Your task to perform on an android device: open app "eBay: The shopping marketplace" Image 0: 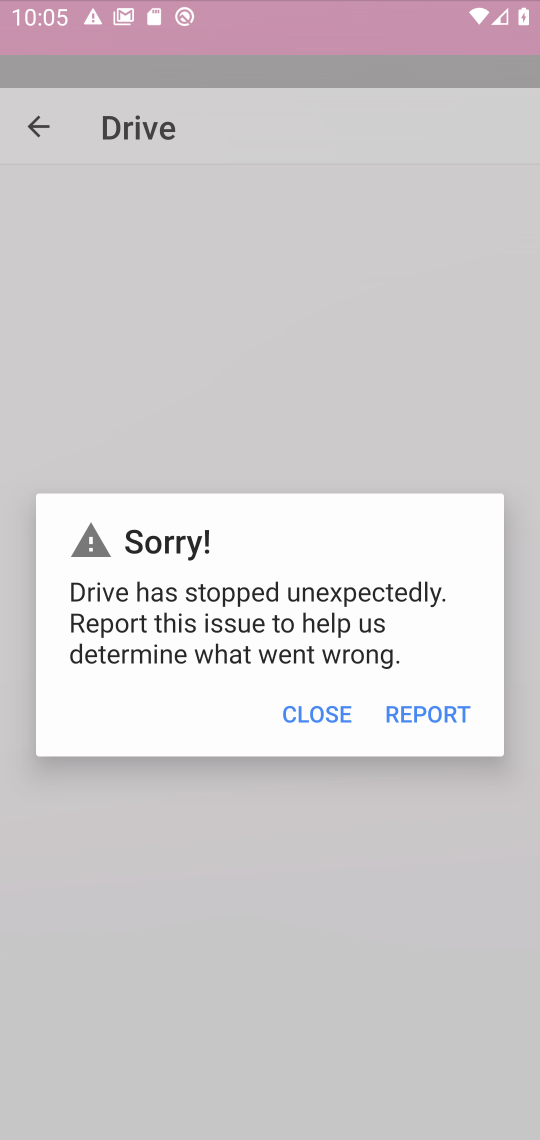
Step 0: click (204, 74)
Your task to perform on an android device: open app "eBay: The shopping marketplace" Image 1: 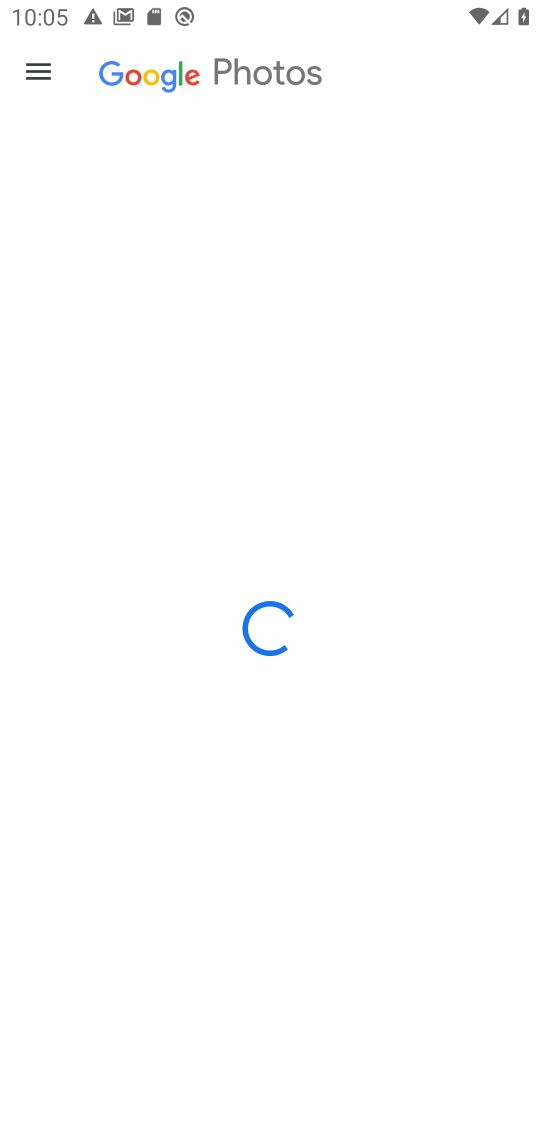
Step 1: press home button
Your task to perform on an android device: open app "eBay: The shopping marketplace" Image 2: 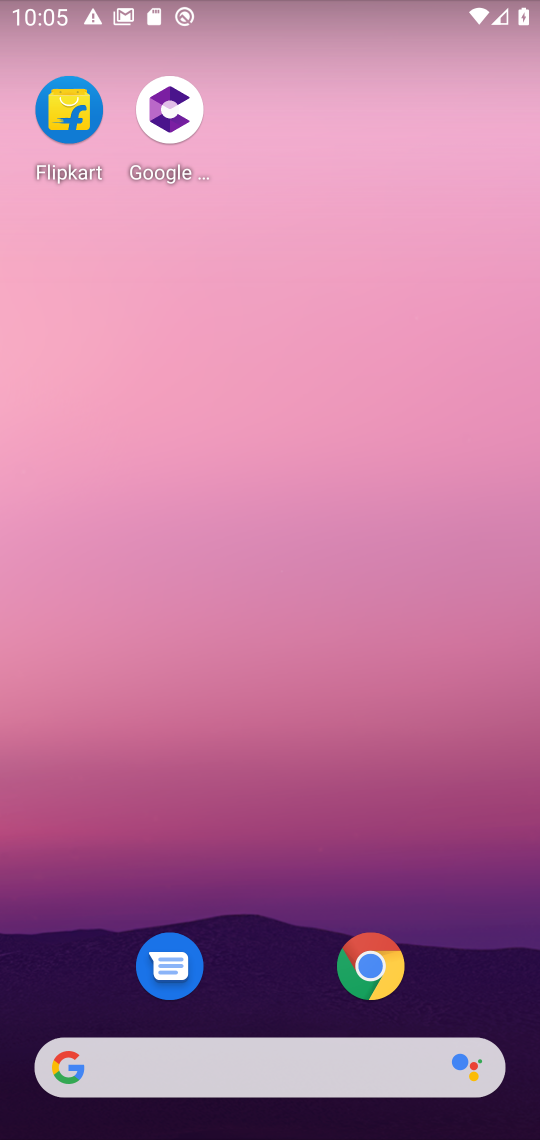
Step 2: drag from (274, 788) to (230, 8)
Your task to perform on an android device: open app "eBay: The shopping marketplace" Image 3: 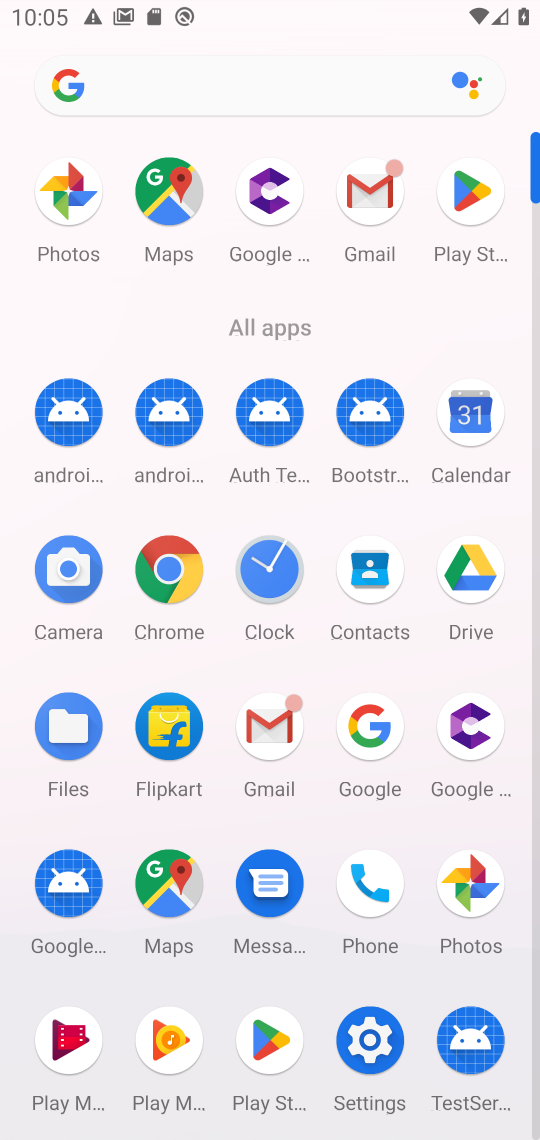
Step 3: click (456, 197)
Your task to perform on an android device: open app "eBay: The shopping marketplace" Image 4: 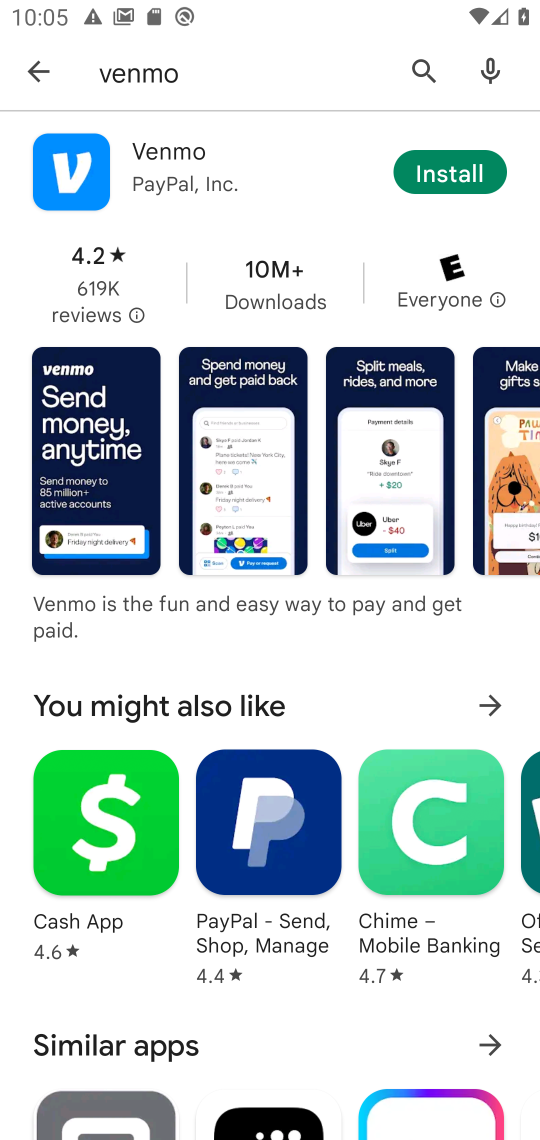
Step 4: click (160, 74)
Your task to perform on an android device: open app "eBay: The shopping marketplace" Image 5: 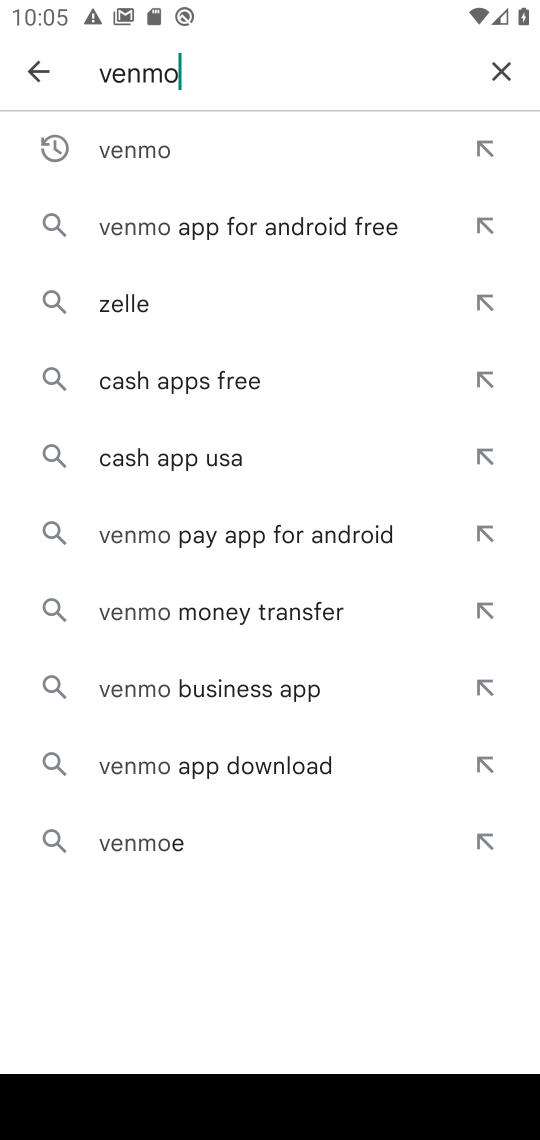
Step 5: click (503, 62)
Your task to perform on an android device: open app "eBay: The shopping marketplace" Image 6: 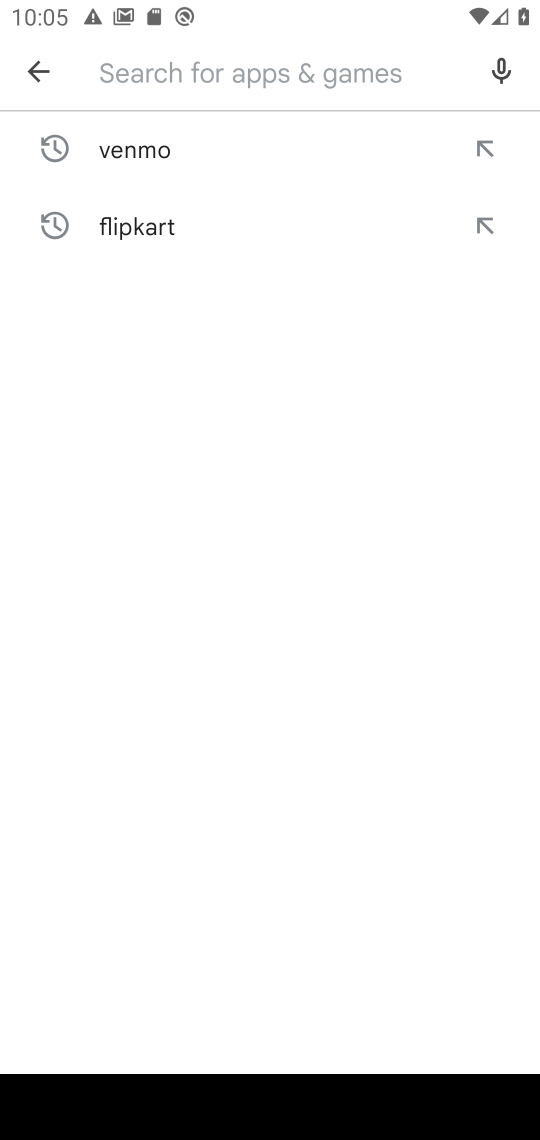
Step 6: type "eBay"
Your task to perform on an android device: open app "eBay: The shopping marketplace" Image 7: 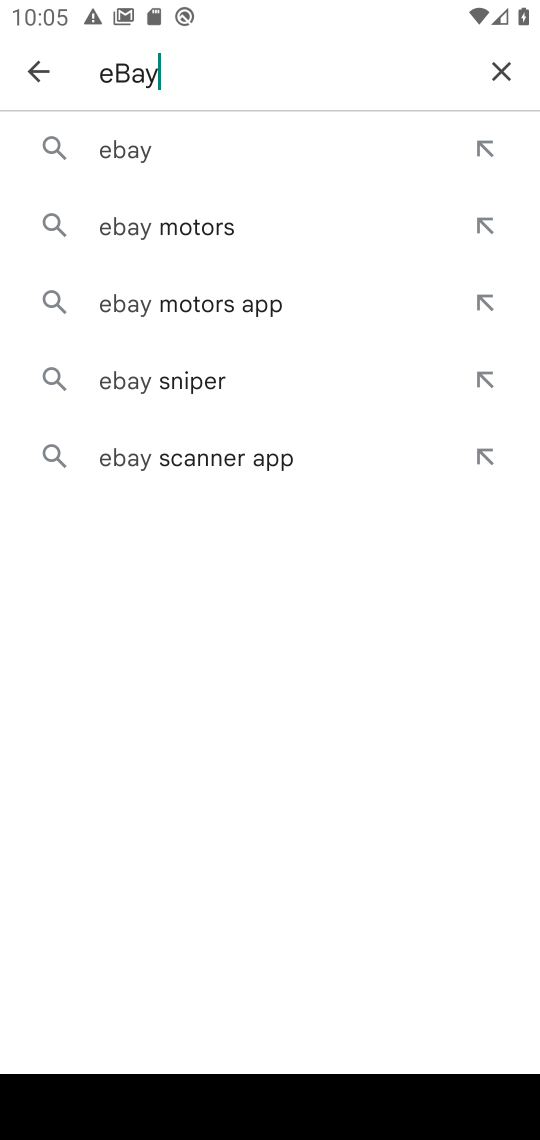
Step 7: click (138, 152)
Your task to perform on an android device: open app "eBay: The shopping marketplace" Image 8: 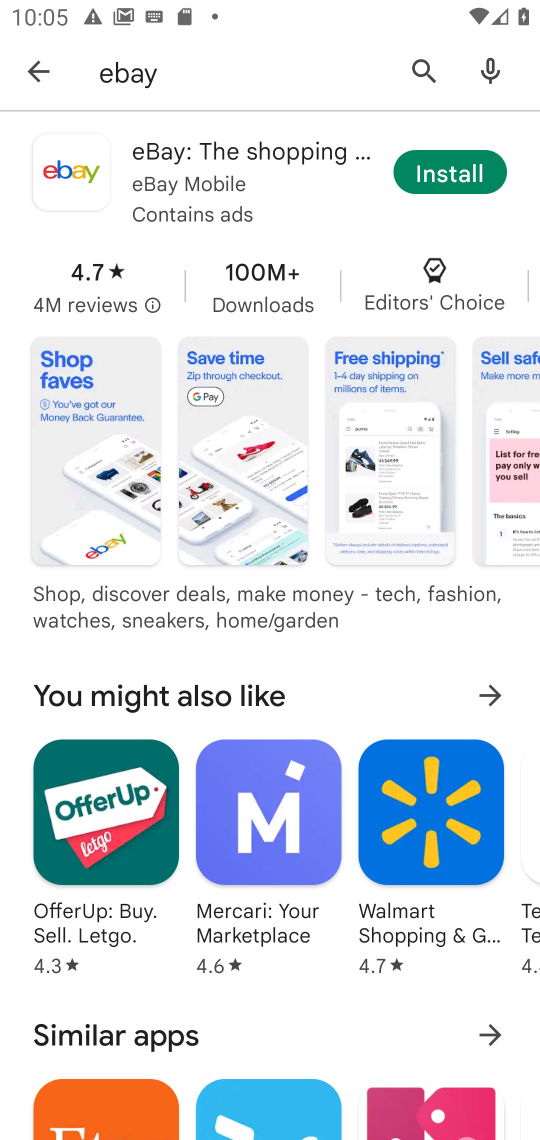
Step 8: task complete